Your task to perform on an android device: turn off notifications in google photos Image 0: 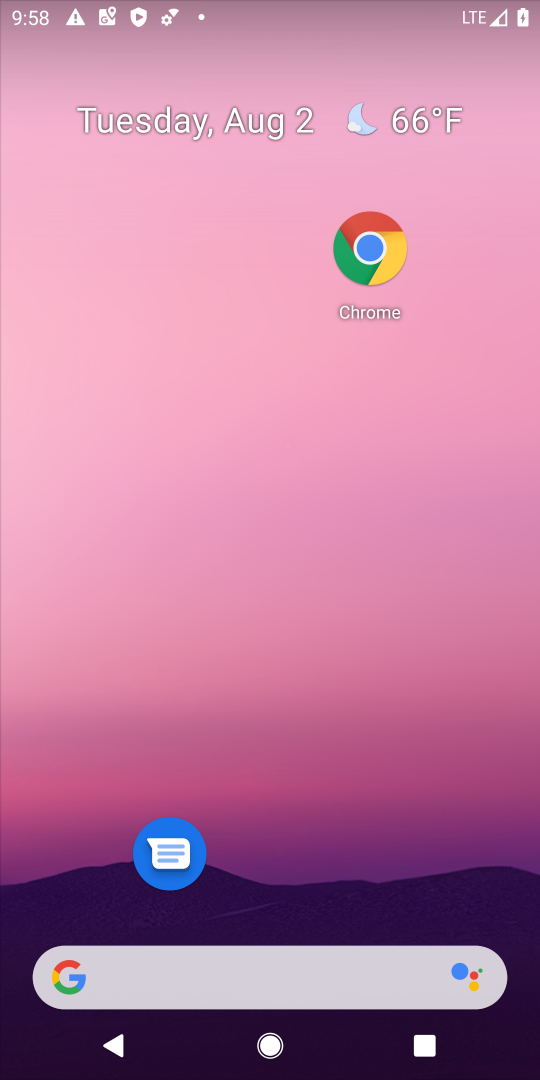
Step 0: drag from (268, 890) to (249, 102)
Your task to perform on an android device: turn off notifications in google photos Image 1: 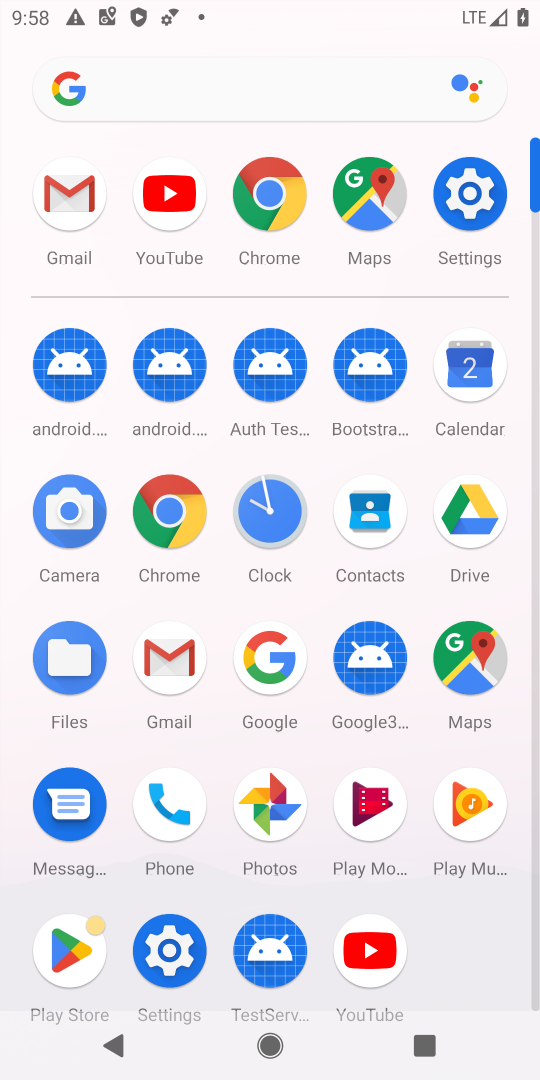
Step 1: click (256, 803)
Your task to perform on an android device: turn off notifications in google photos Image 2: 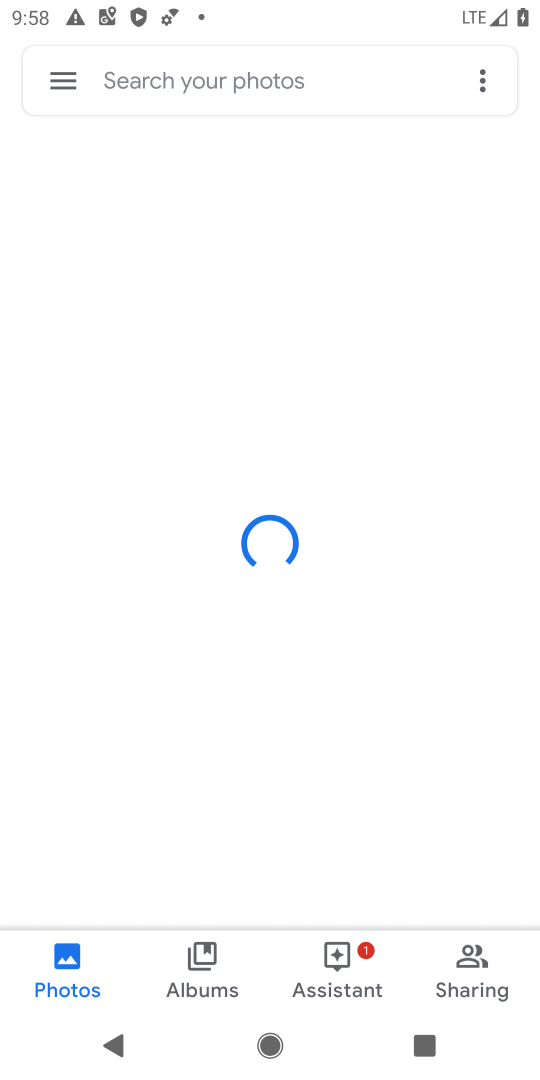
Step 2: click (57, 87)
Your task to perform on an android device: turn off notifications in google photos Image 3: 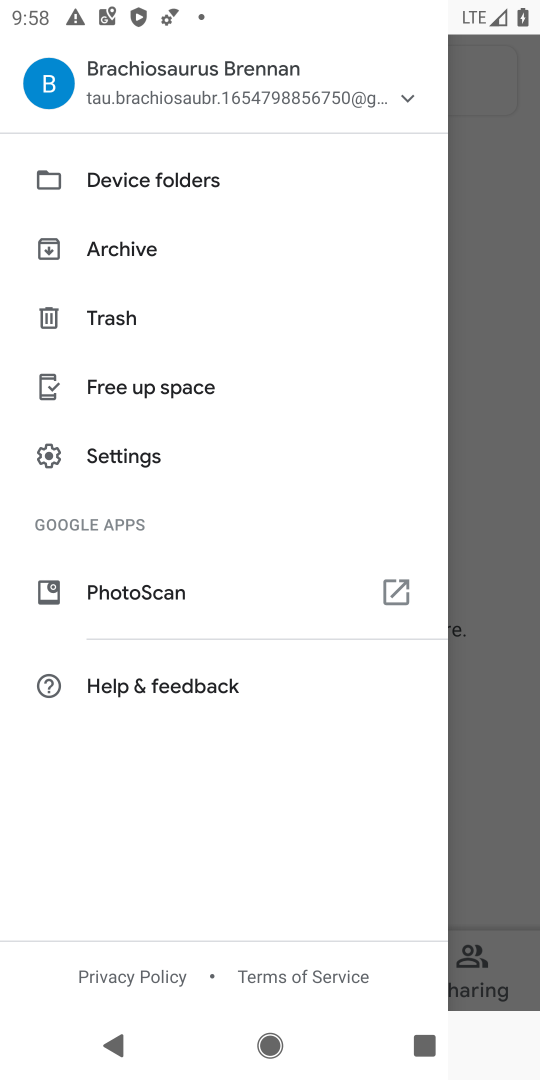
Step 3: click (123, 454)
Your task to perform on an android device: turn off notifications in google photos Image 4: 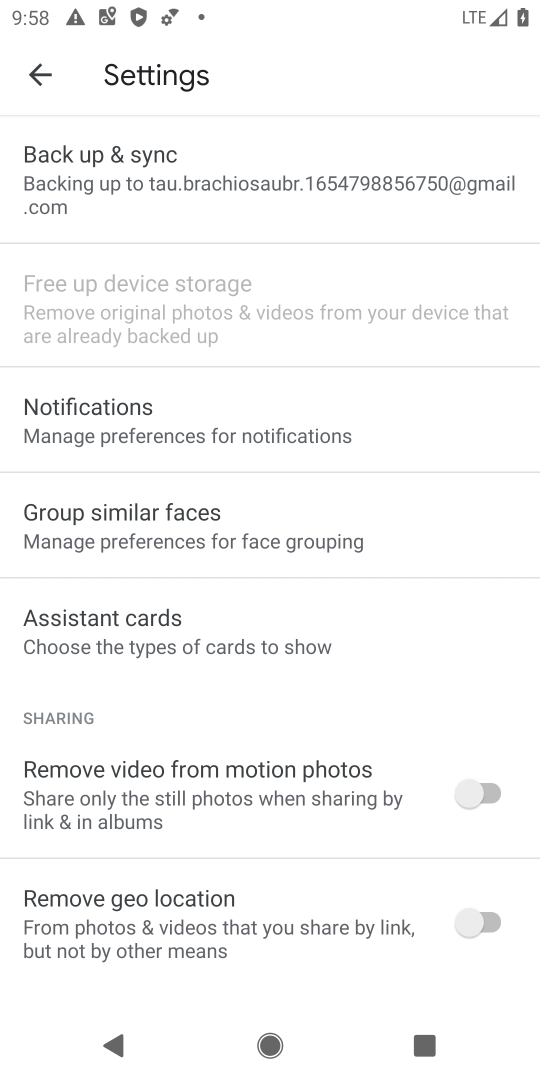
Step 4: click (170, 428)
Your task to perform on an android device: turn off notifications in google photos Image 5: 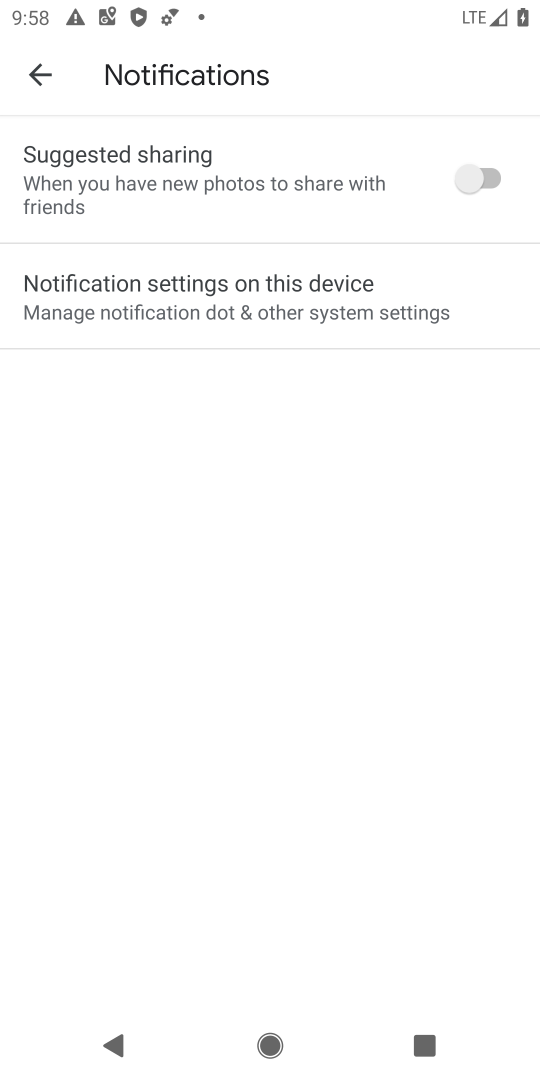
Step 5: click (413, 318)
Your task to perform on an android device: turn off notifications in google photos Image 6: 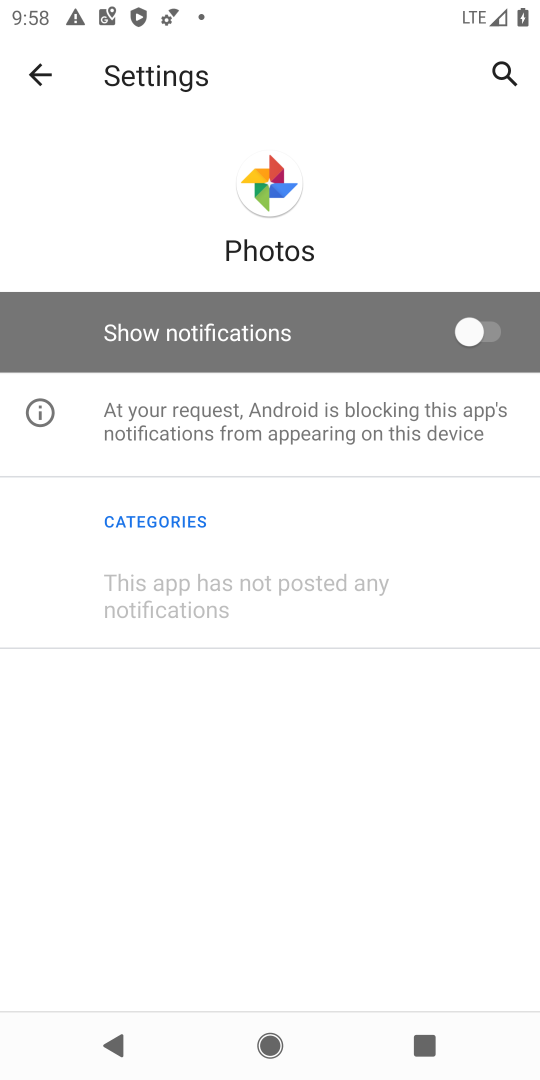
Step 6: task complete